Your task to perform on an android device: Search for pizza restaurants on Maps Image 0: 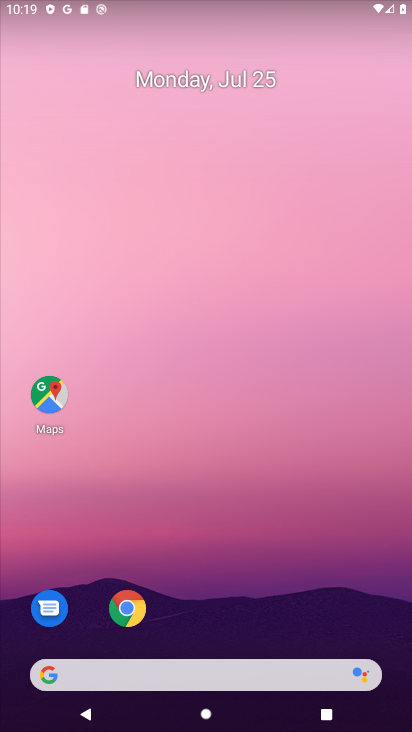
Step 0: click (54, 384)
Your task to perform on an android device: Search for pizza restaurants on Maps Image 1: 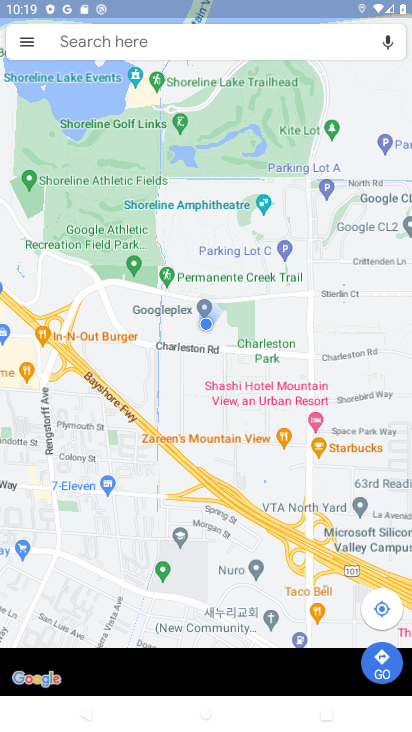
Step 1: click (189, 36)
Your task to perform on an android device: Search for pizza restaurants on Maps Image 2: 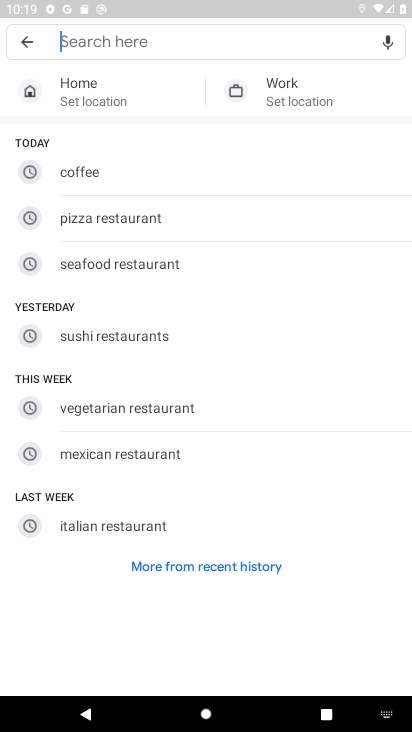
Step 2: click (149, 211)
Your task to perform on an android device: Search for pizza restaurants on Maps Image 3: 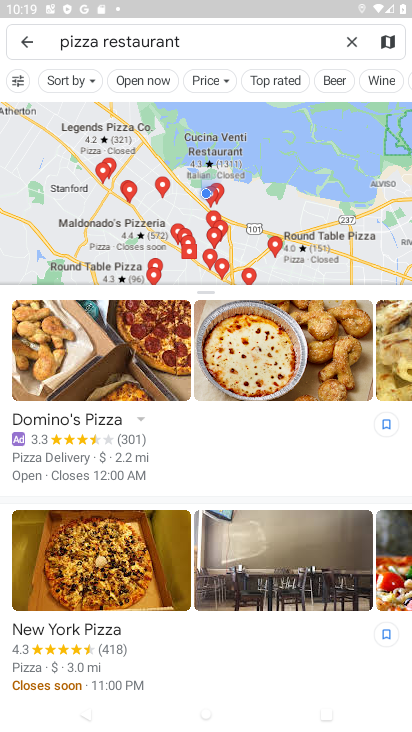
Step 3: task complete